Your task to perform on an android device: turn on sleep mode Image 0: 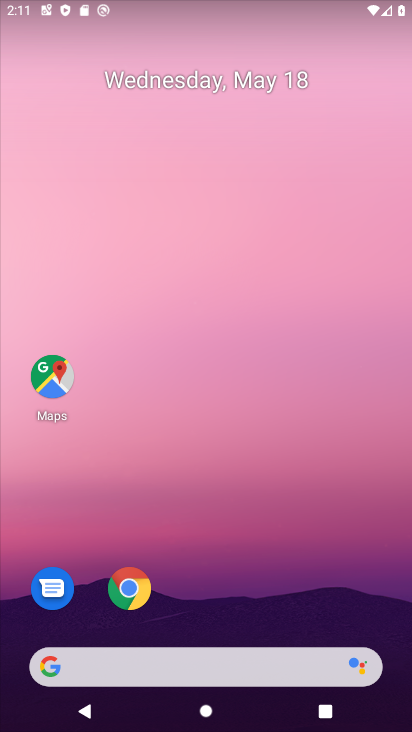
Step 0: drag from (369, 589) to (318, 152)
Your task to perform on an android device: turn on sleep mode Image 1: 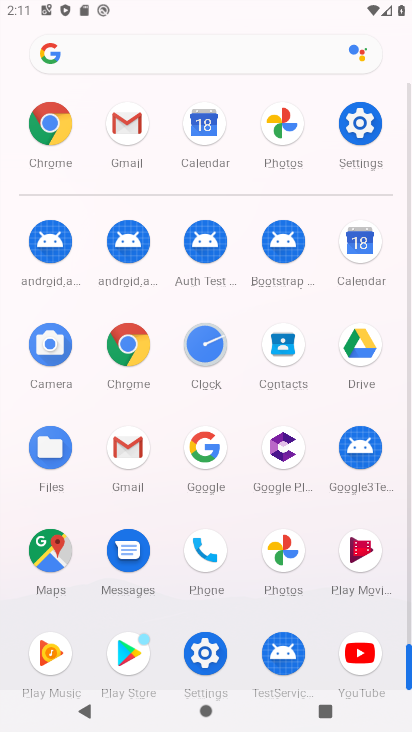
Step 1: click (354, 132)
Your task to perform on an android device: turn on sleep mode Image 2: 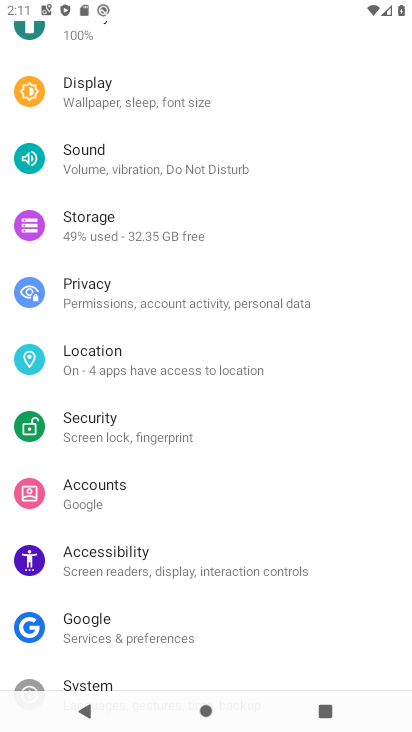
Step 2: drag from (374, 602) to (366, 434)
Your task to perform on an android device: turn on sleep mode Image 3: 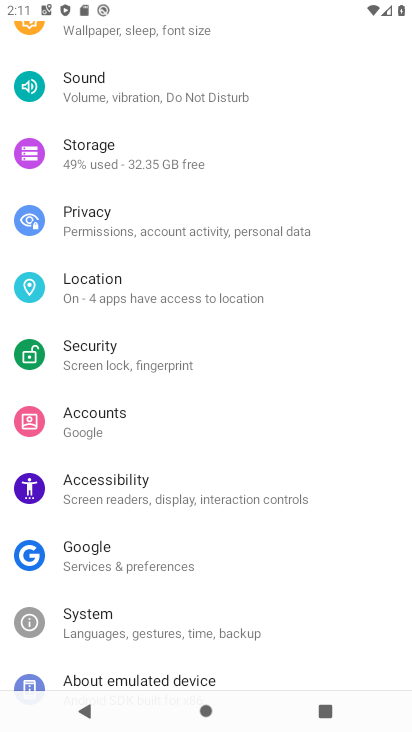
Step 3: drag from (348, 632) to (358, 473)
Your task to perform on an android device: turn on sleep mode Image 4: 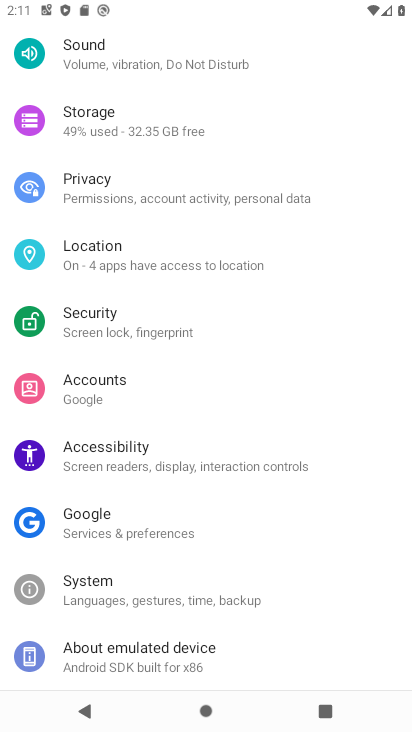
Step 4: drag from (353, 359) to (354, 480)
Your task to perform on an android device: turn on sleep mode Image 5: 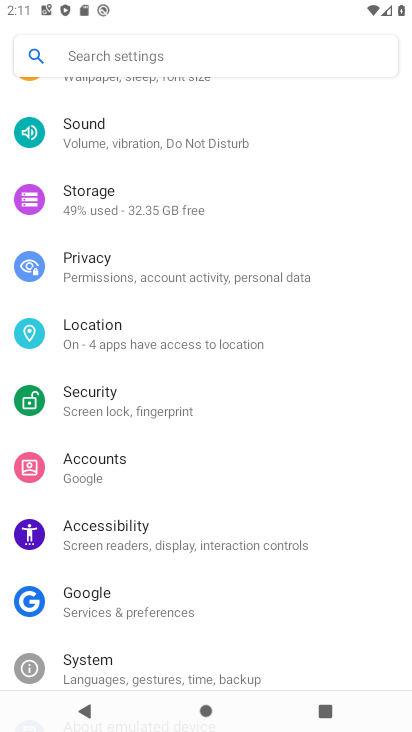
Step 5: drag from (366, 357) to (372, 446)
Your task to perform on an android device: turn on sleep mode Image 6: 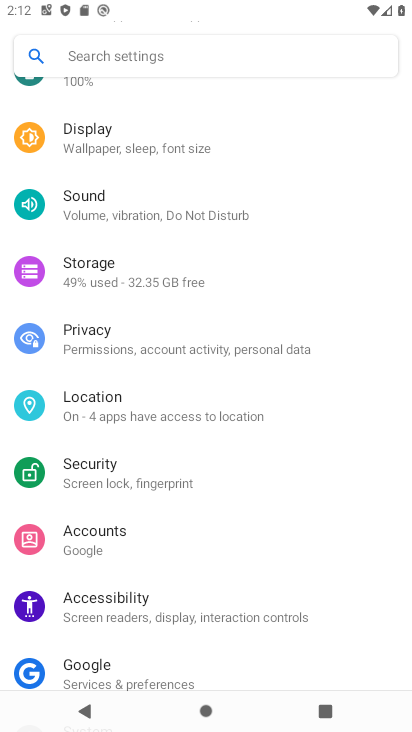
Step 6: drag from (370, 311) to (371, 388)
Your task to perform on an android device: turn on sleep mode Image 7: 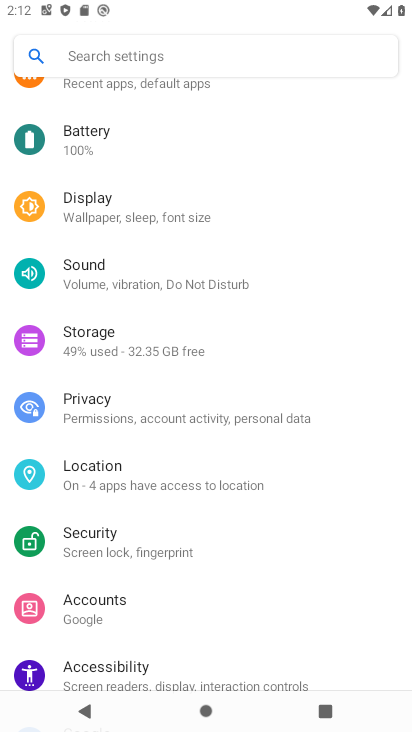
Step 7: drag from (370, 299) to (359, 383)
Your task to perform on an android device: turn on sleep mode Image 8: 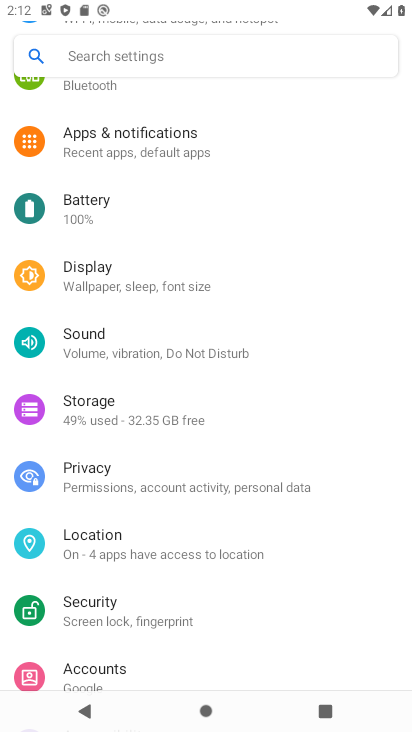
Step 8: drag from (357, 314) to (357, 393)
Your task to perform on an android device: turn on sleep mode Image 9: 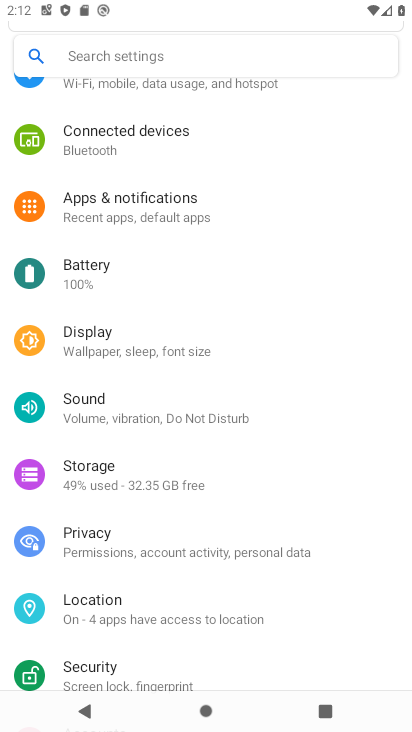
Step 9: drag from (347, 319) to (346, 409)
Your task to perform on an android device: turn on sleep mode Image 10: 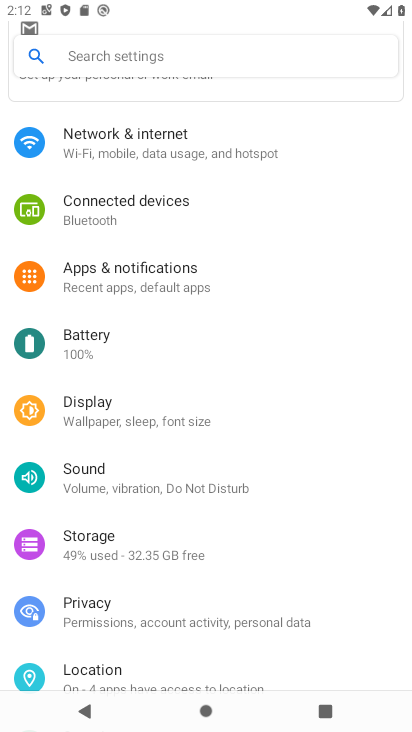
Step 10: drag from (345, 321) to (346, 386)
Your task to perform on an android device: turn on sleep mode Image 11: 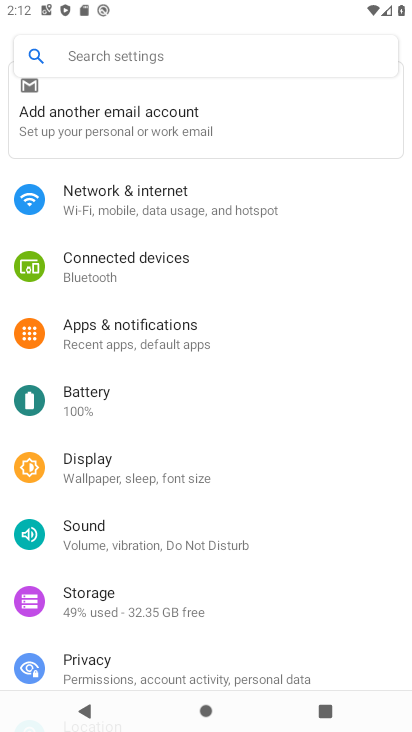
Step 11: drag from (345, 320) to (338, 390)
Your task to perform on an android device: turn on sleep mode Image 12: 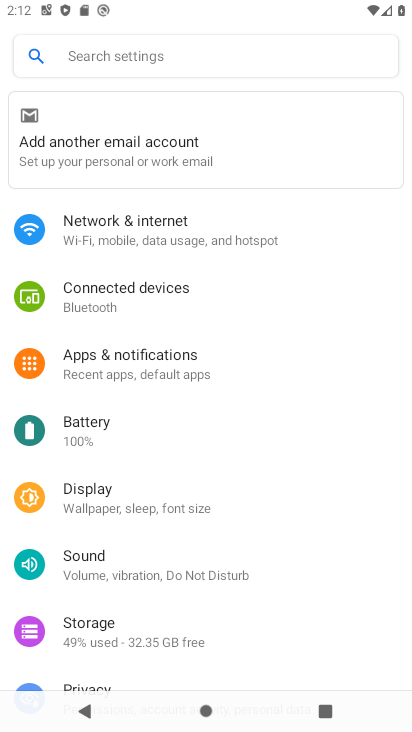
Step 12: drag from (338, 306) to (331, 393)
Your task to perform on an android device: turn on sleep mode Image 13: 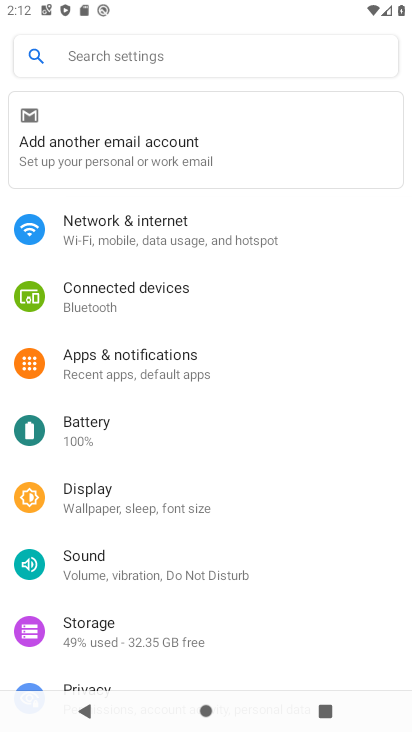
Step 13: drag from (320, 464) to (322, 380)
Your task to perform on an android device: turn on sleep mode Image 14: 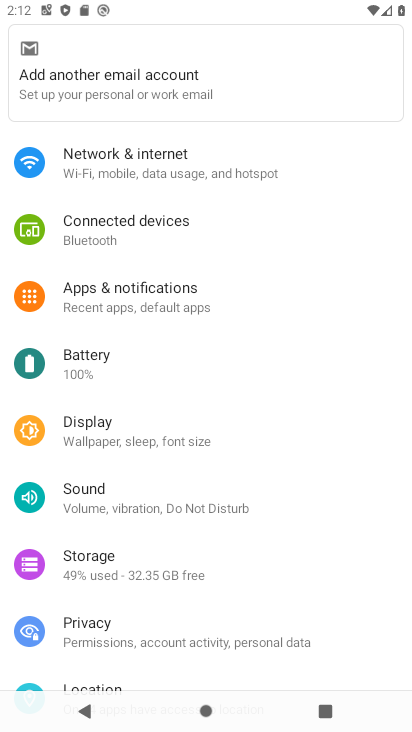
Step 14: click (319, 421)
Your task to perform on an android device: turn on sleep mode Image 15: 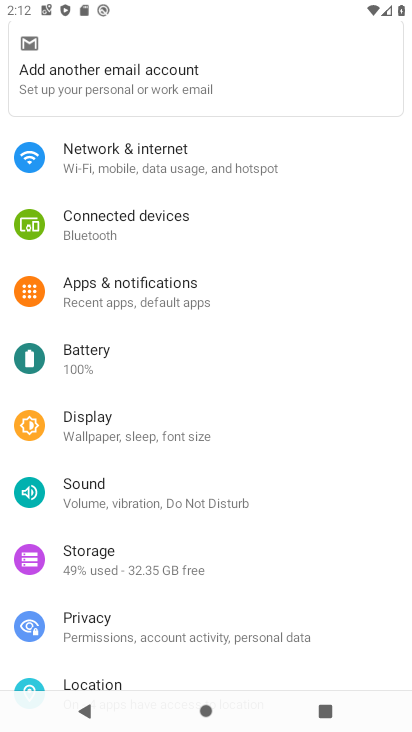
Step 15: click (219, 428)
Your task to perform on an android device: turn on sleep mode Image 16: 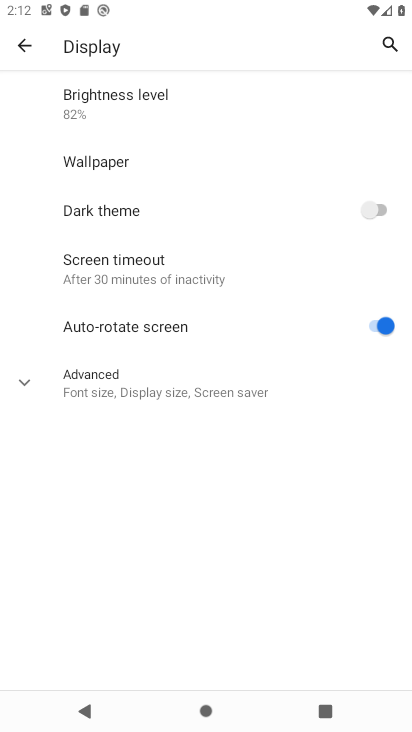
Step 16: click (224, 394)
Your task to perform on an android device: turn on sleep mode Image 17: 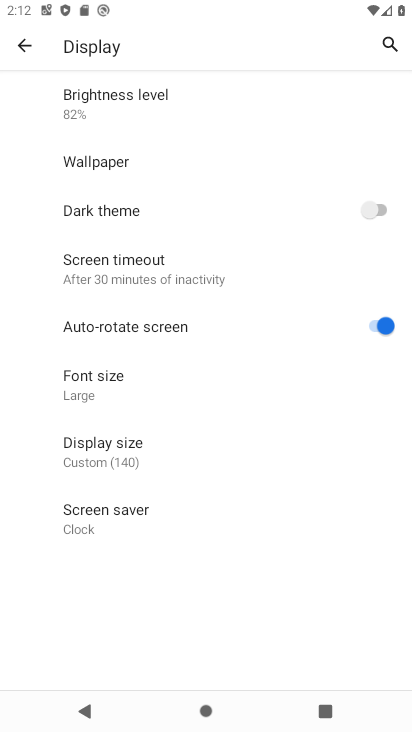
Step 17: task complete